Your task to perform on an android device: Is it going to rain tomorrow? Image 0: 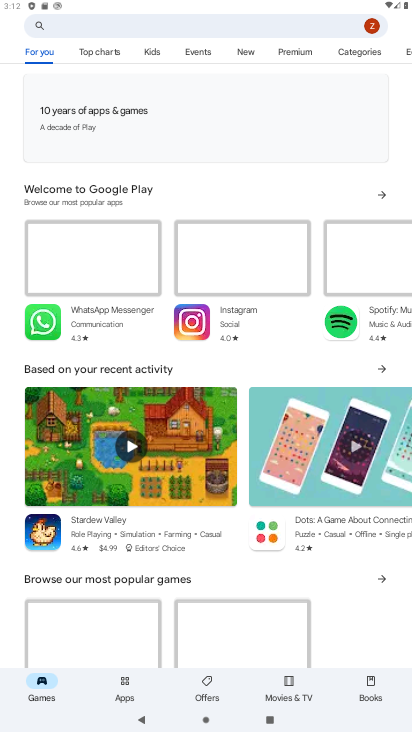
Step 0: press home button
Your task to perform on an android device: Is it going to rain tomorrow? Image 1: 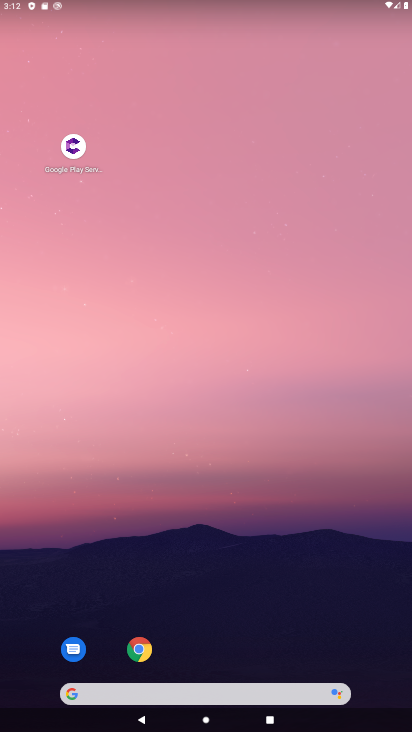
Step 1: click (104, 693)
Your task to perform on an android device: Is it going to rain tomorrow? Image 2: 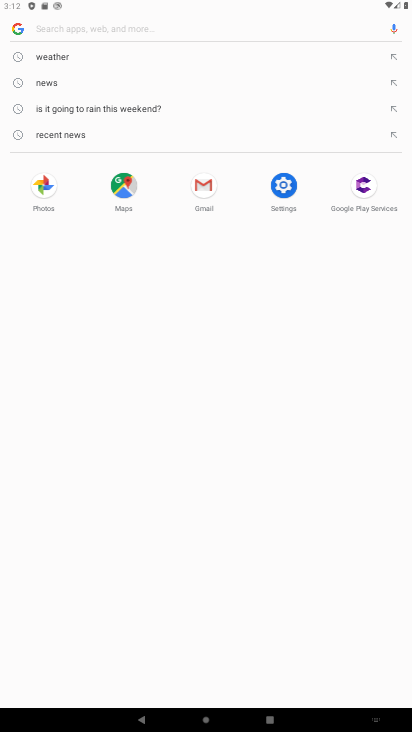
Step 2: type "Is it going to rain tomorrow?"
Your task to perform on an android device: Is it going to rain tomorrow? Image 3: 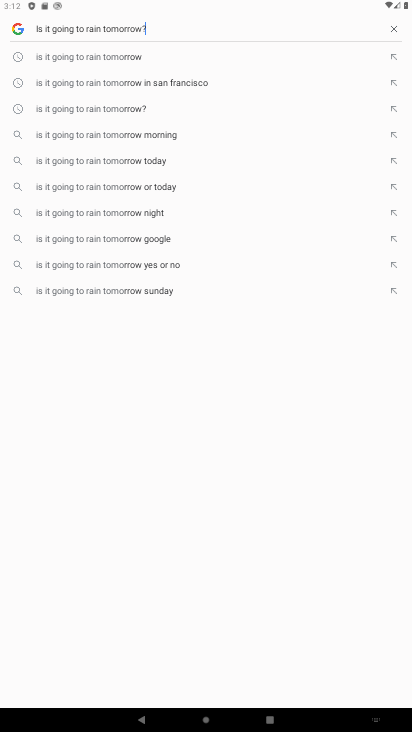
Step 3: type ""
Your task to perform on an android device: Is it going to rain tomorrow? Image 4: 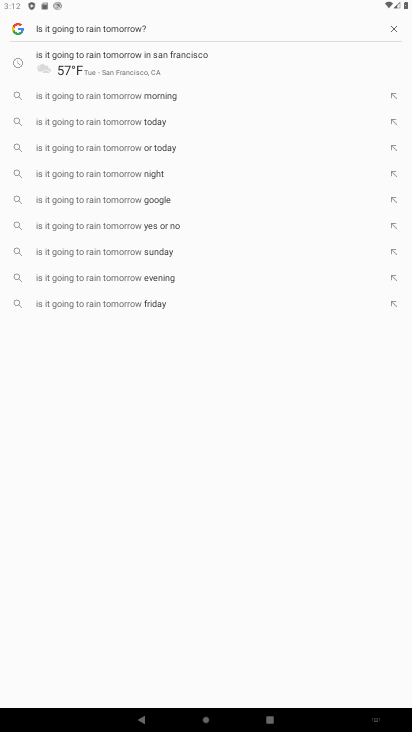
Step 4: task complete